Your task to perform on an android device: Show me productivity apps on the Play Store Image 0: 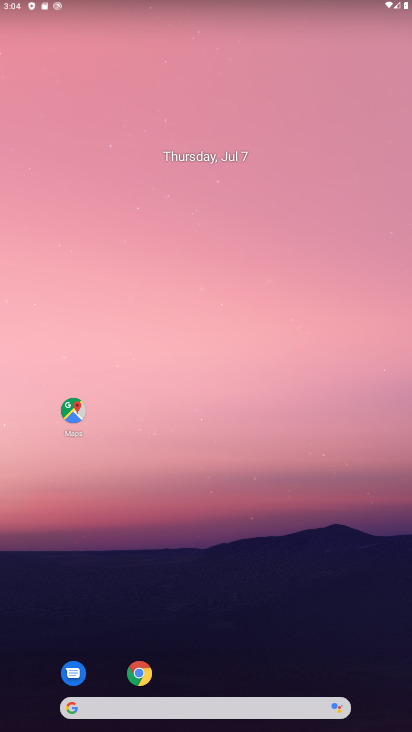
Step 0: drag from (270, 671) to (228, 69)
Your task to perform on an android device: Show me productivity apps on the Play Store Image 1: 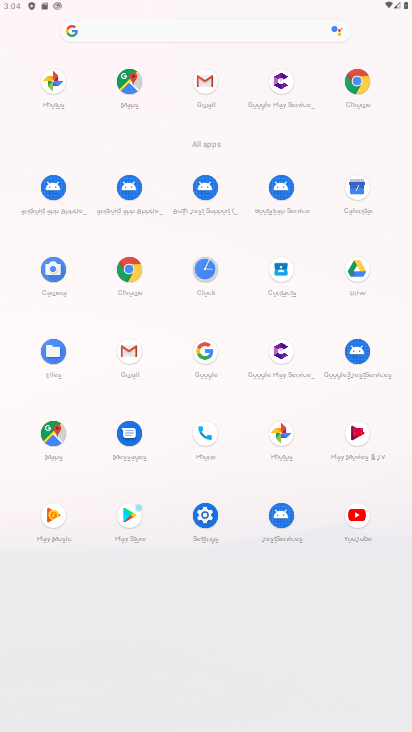
Step 1: click (143, 519)
Your task to perform on an android device: Show me productivity apps on the Play Store Image 2: 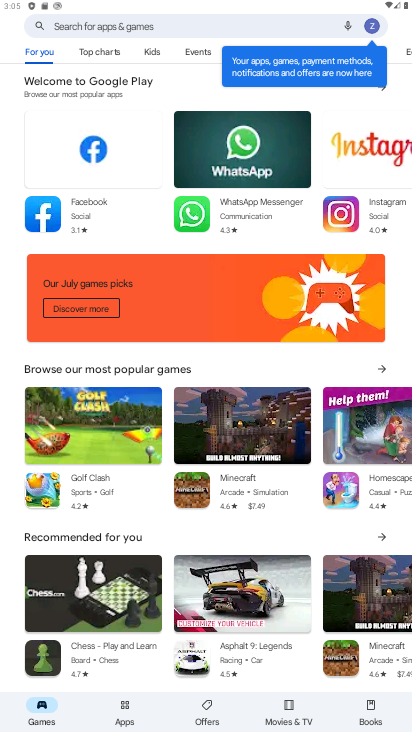
Step 2: click (125, 718)
Your task to perform on an android device: Show me productivity apps on the Play Store Image 3: 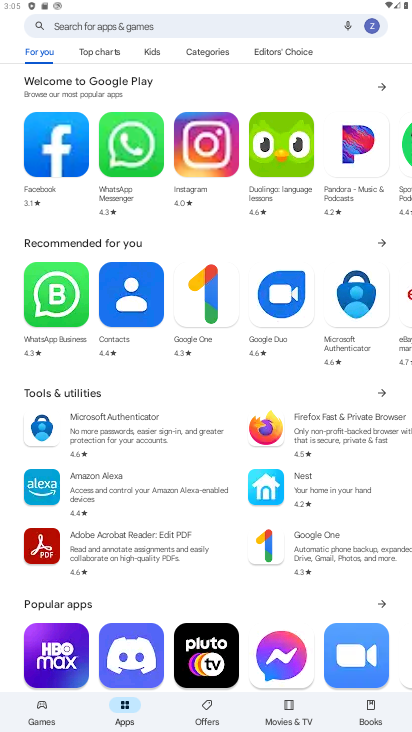
Step 3: click (214, 57)
Your task to perform on an android device: Show me productivity apps on the Play Store Image 4: 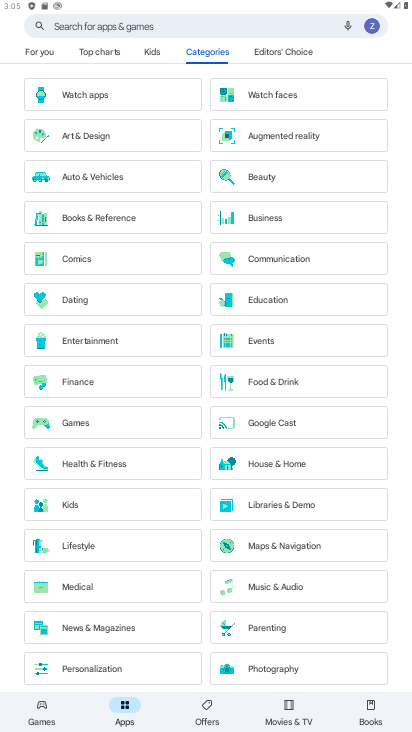
Step 4: drag from (129, 593) to (198, 312)
Your task to perform on an android device: Show me productivity apps on the Play Store Image 5: 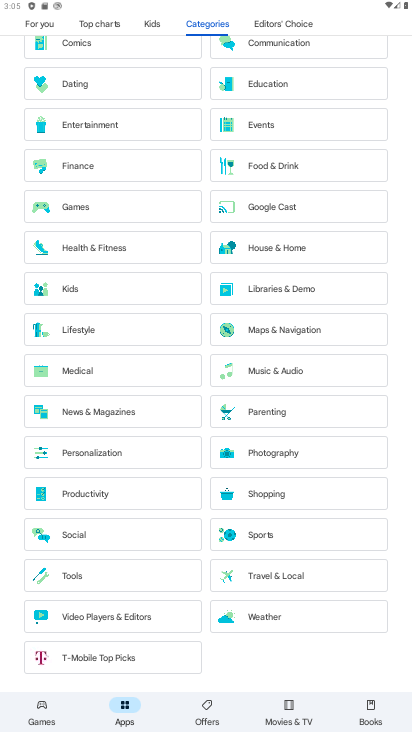
Step 5: click (132, 490)
Your task to perform on an android device: Show me productivity apps on the Play Store Image 6: 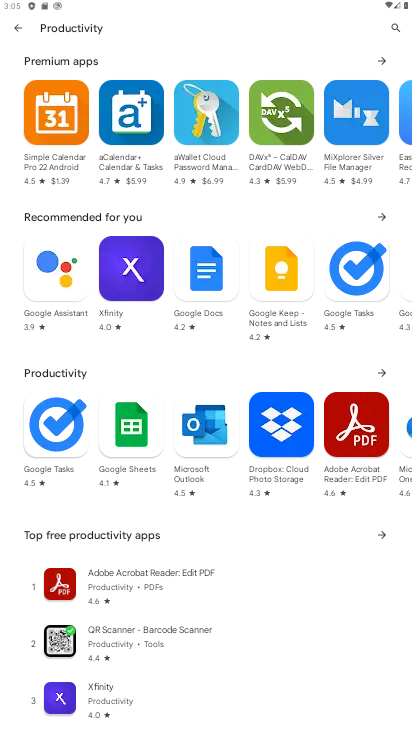
Step 6: task complete